Your task to perform on an android device: turn on location history Image 0: 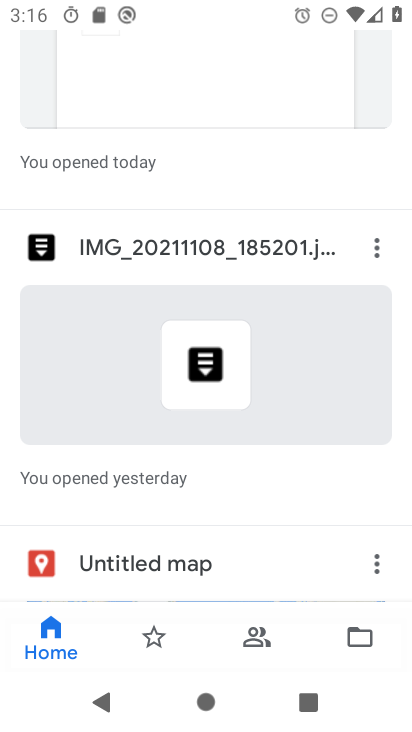
Step 0: press home button
Your task to perform on an android device: turn on location history Image 1: 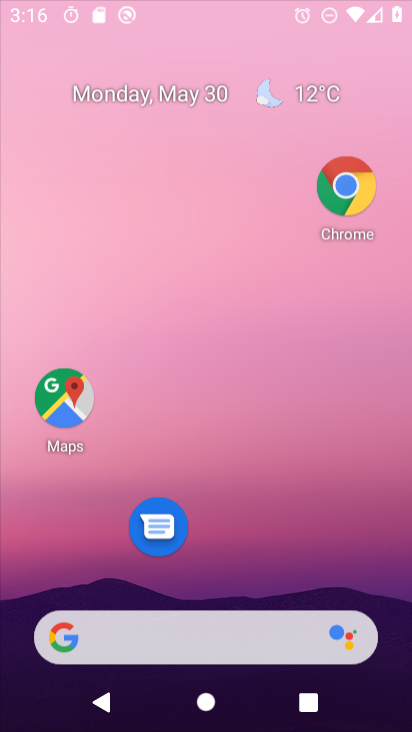
Step 1: drag from (178, 541) to (289, 0)
Your task to perform on an android device: turn on location history Image 2: 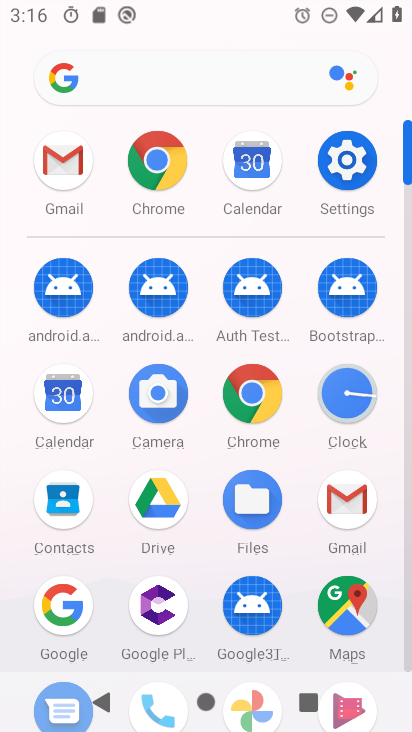
Step 2: click (346, 136)
Your task to perform on an android device: turn on location history Image 3: 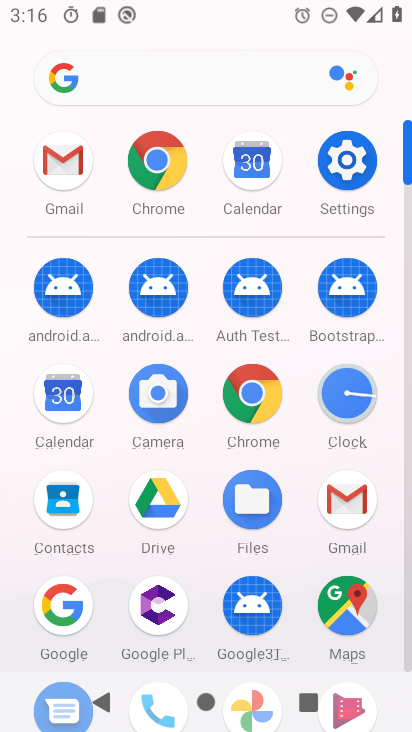
Step 3: click (346, 136)
Your task to perform on an android device: turn on location history Image 4: 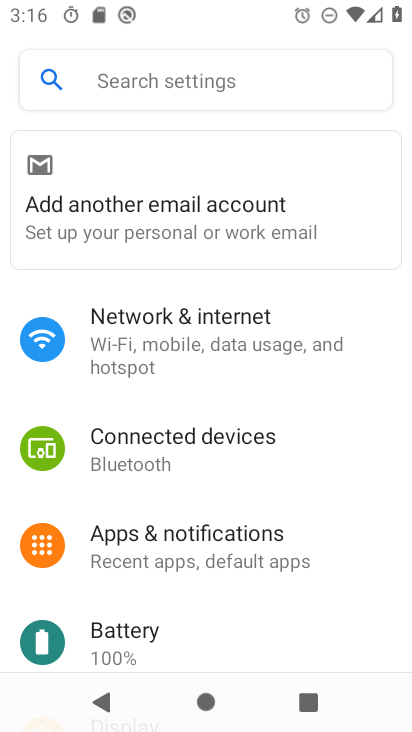
Step 4: drag from (225, 568) to (409, 3)
Your task to perform on an android device: turn on location history Image 5: 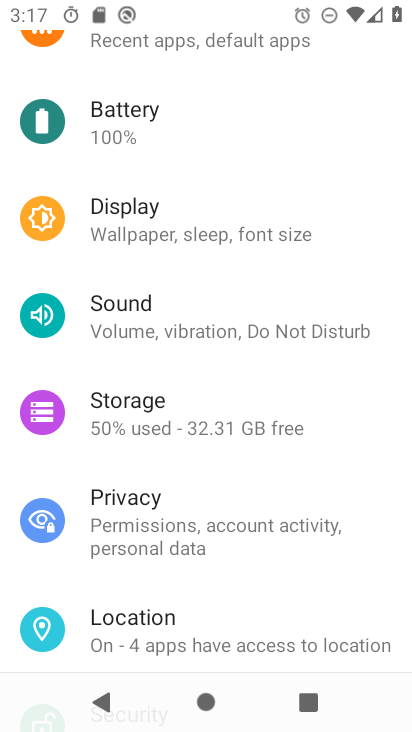
Step 5: drag from (175, 569) to (282, 257)
Your task to perform on an android device: turn on location history Image 6: 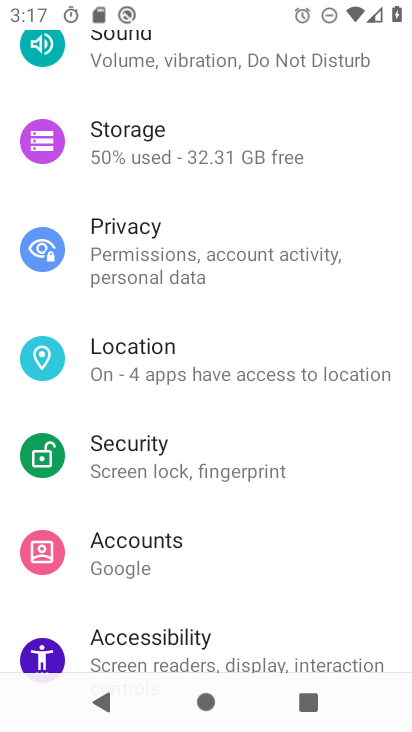
Step 6: click (171, 371)
Your task to perform on an android device: turn on location history Image 7: 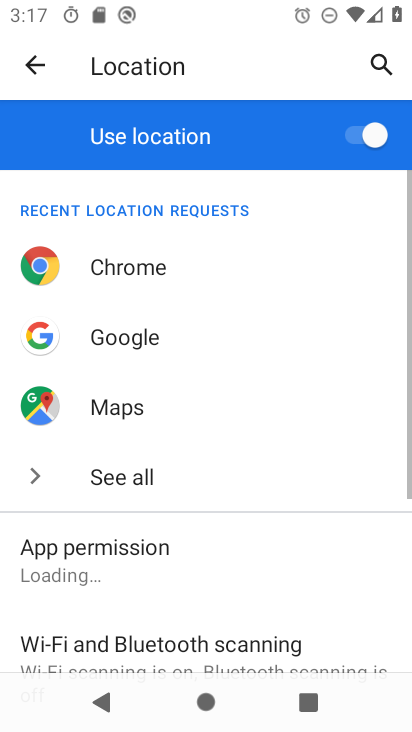
Step 7: drag from (167, 556) to (325, 138)
Your task to perform on an android device: turn on location history Image 8: 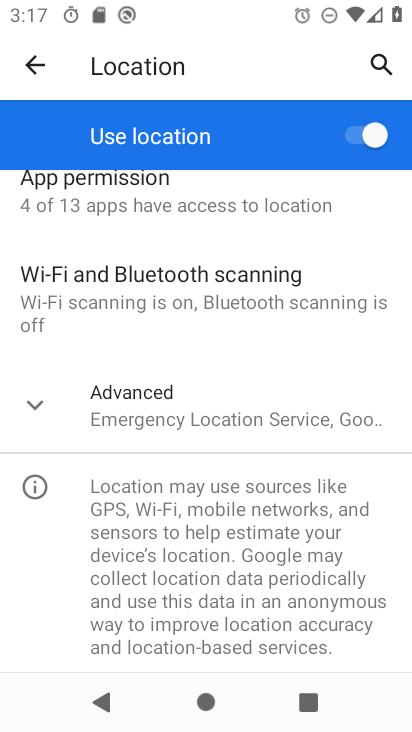
Step 8: click (108, 410)
Your task to perform on an android device: turn on location history Image 9: 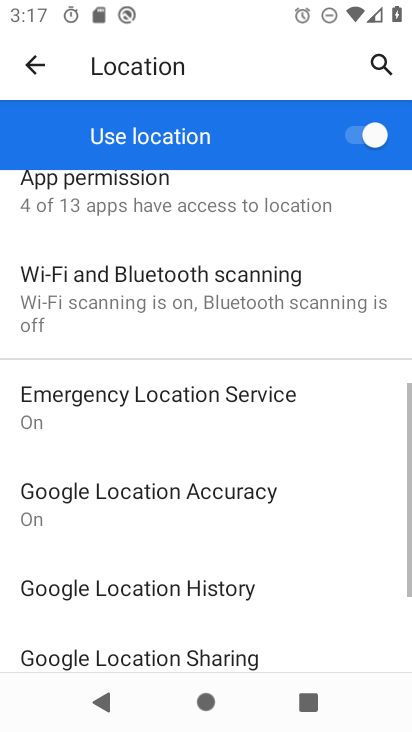
Step 9: drag from (195, 593) to (254, 175)
Your task to perform on an android device: turn on location history Image 10: 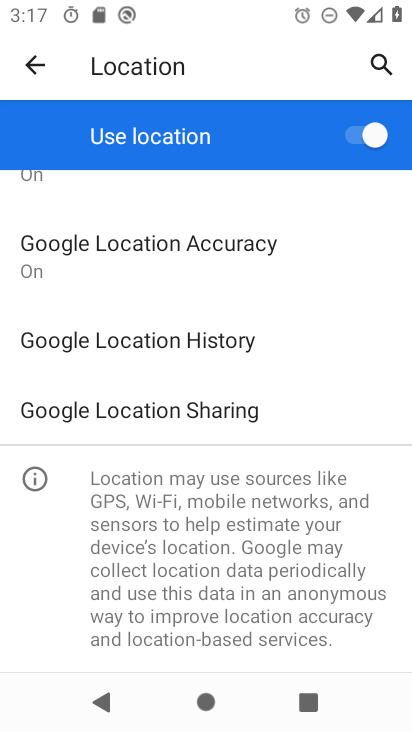
Step 10: click (217, 338)
Your task to perform on an android device: turn on location history Image 11: 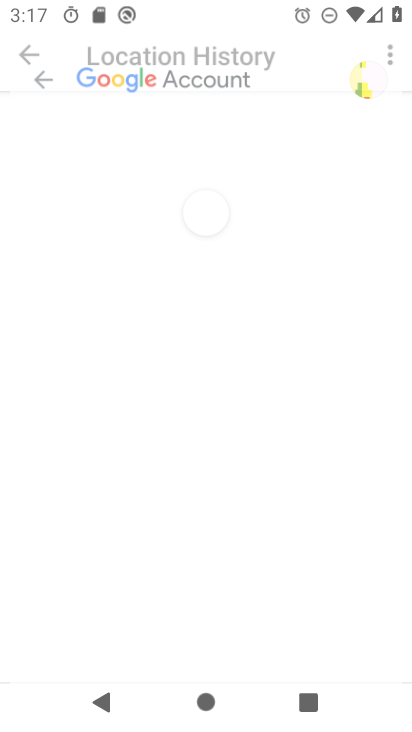
Step 11: task complete